Your task to perform on an android device: add a contact Image 0: 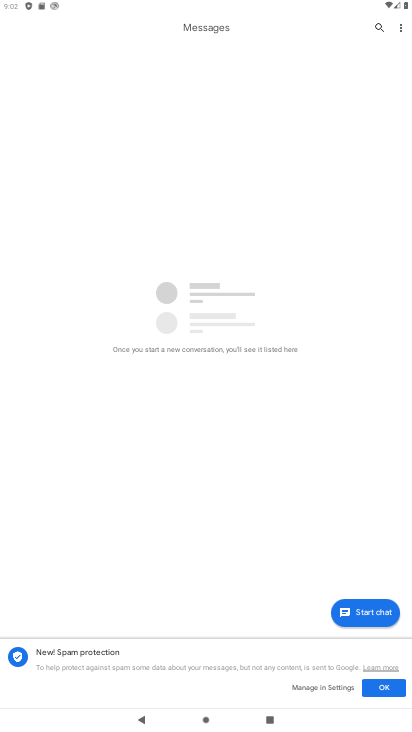
Step 0: press home button
Your task to perform on an android device: add a contact Image 1: 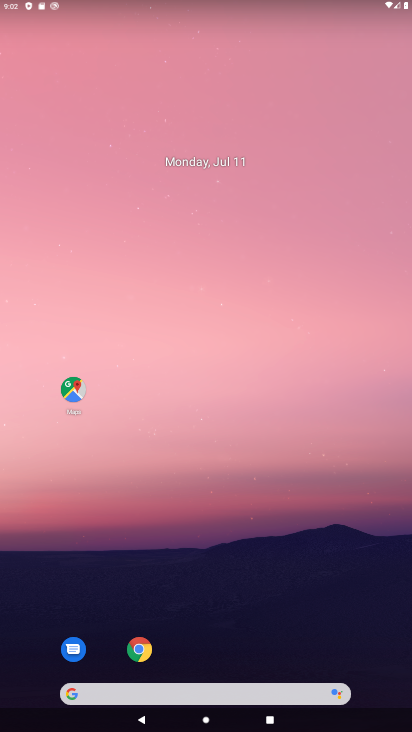
Step 1: drag from (202, 671) to (253, 124)
Your task to perform on an android device: add a contact Image 2: 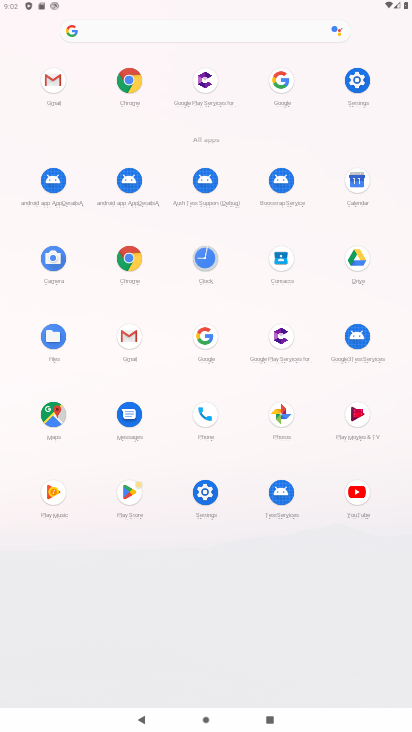
Step 2: click (279, 254)
Your task to perform on an android device: add a contact Image 3: 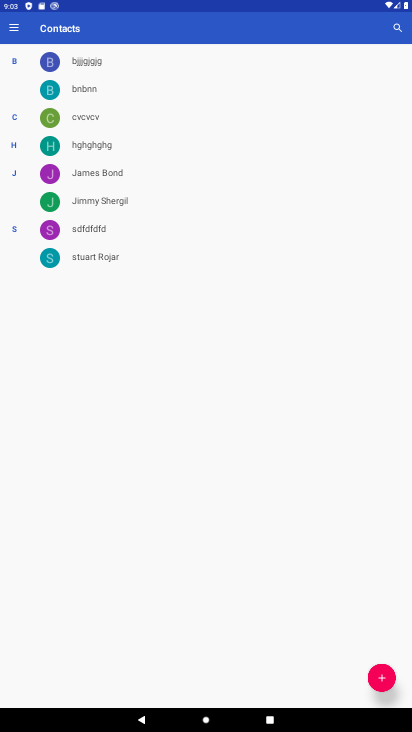
Step 3: click (377, 669)
Your task to perform on an android device: add a contact Image 4: 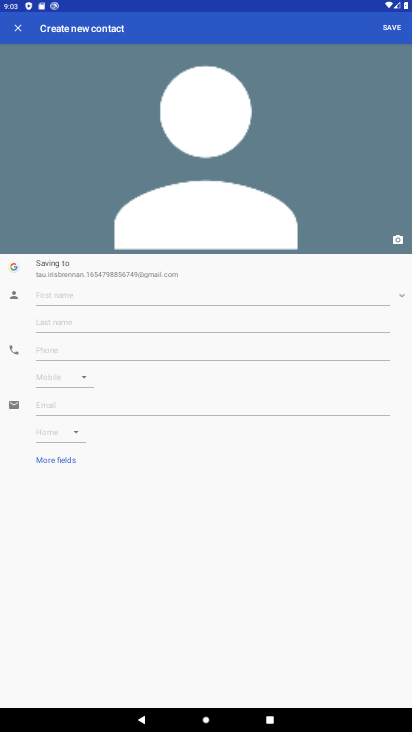
Step 4: click (77, 297)
Your task to perform on an android device: add a contact Image 5: 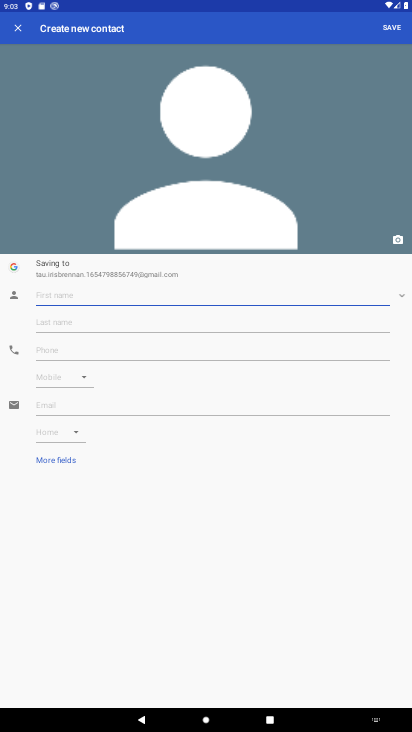
Step 5: type "yoko"
Your task to perform on an android device: add a contact Image 6: 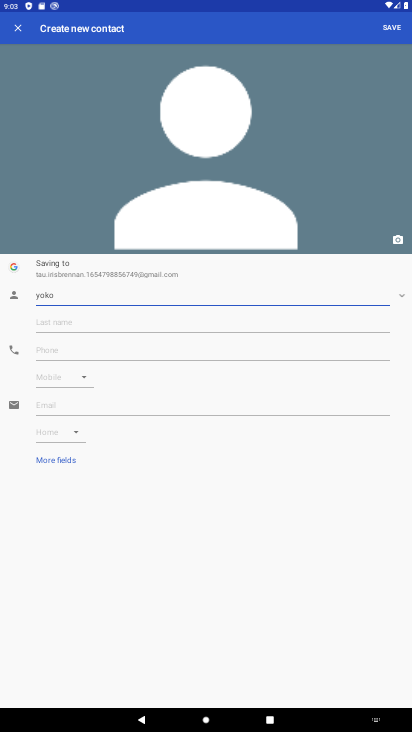
Step 6: click (52, 342)
Your task to perform on an android device: add a contact Image 7: 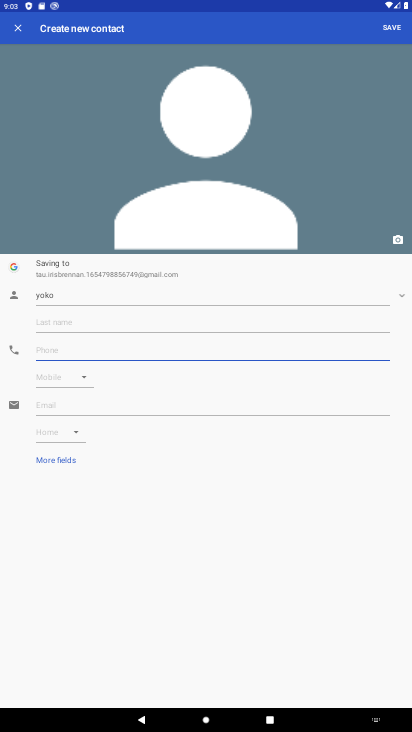
Step 7: type "233233211"
Your task to perform on an android device: add a contact Image 8: 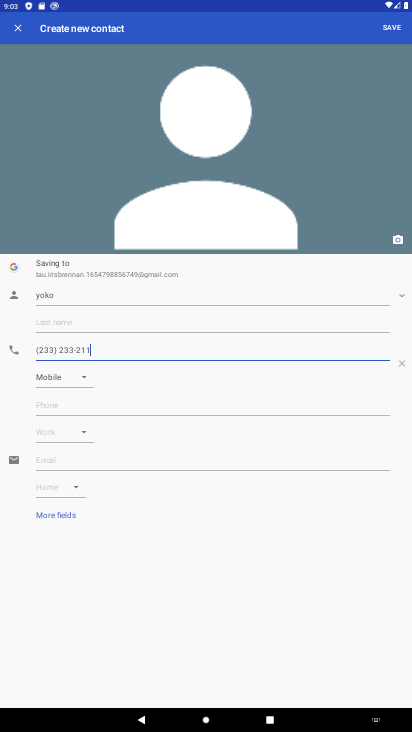
Step 8: click (387, 23)
Your task to perform on an android device: add a contact Image 9: 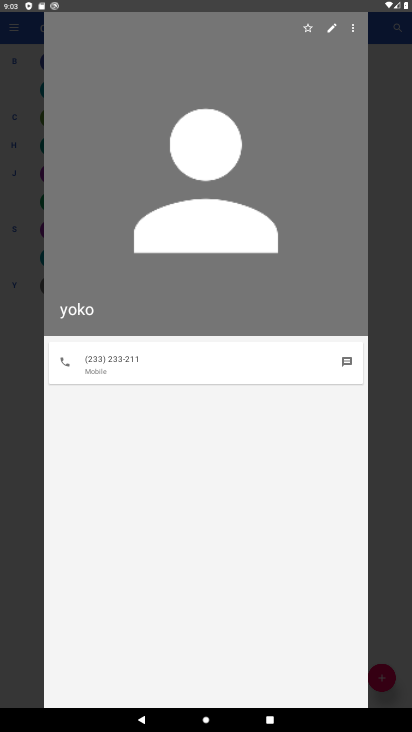
Step 9: task complete